Your task to perform on an android device: turn off airplane mode Image 0: 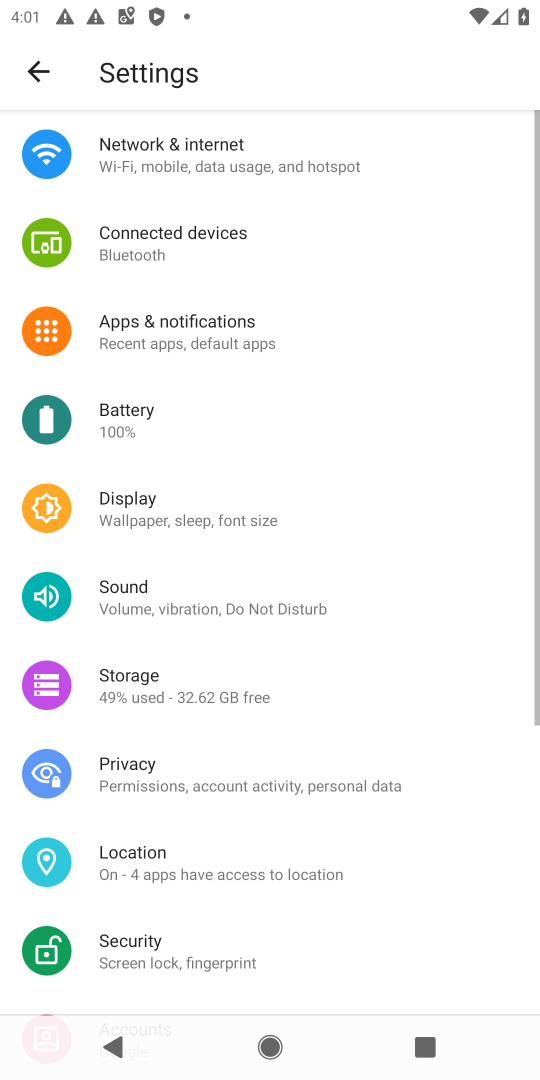
Step 0: click (201, 161)
Your task to perform on an android device: turn off airplane mode Image 1: 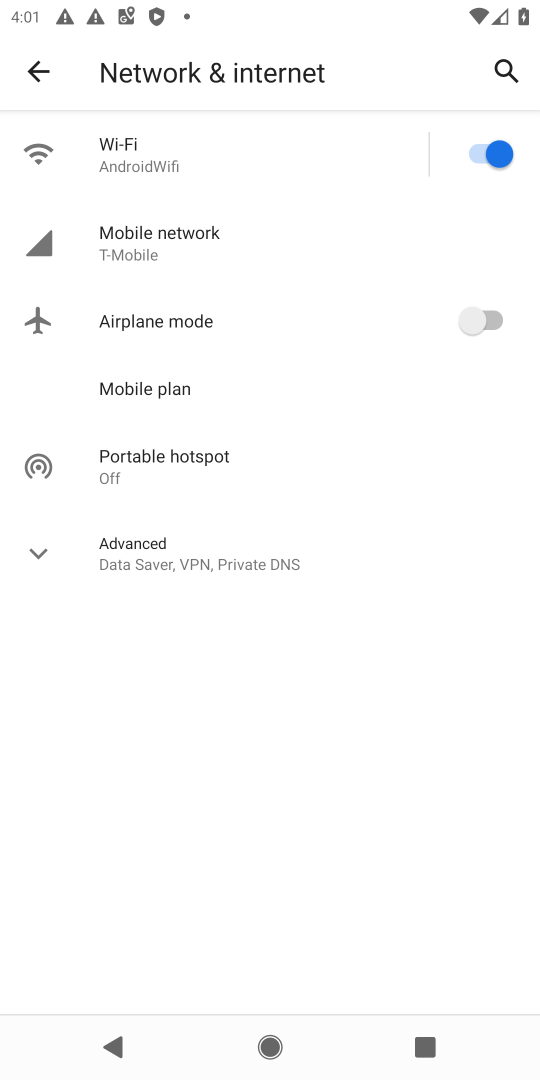
Step 1: task complete